Your task to perform on an android device: Open Android settings Image 0: 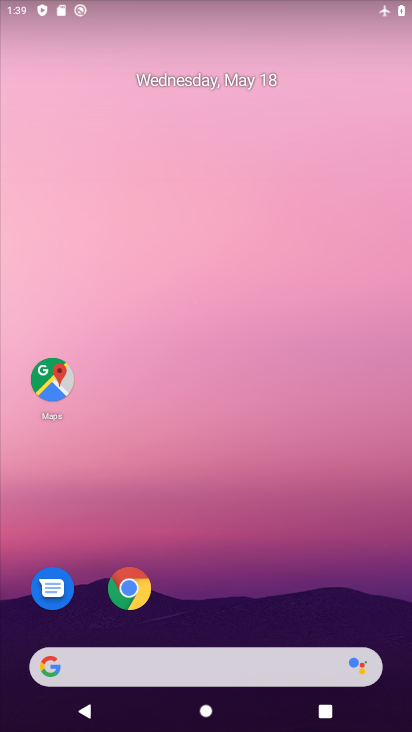
Step 0: drag from (38, 620) to (253, 277)
Your task to perform on an android device: Open Android settings Image 1: 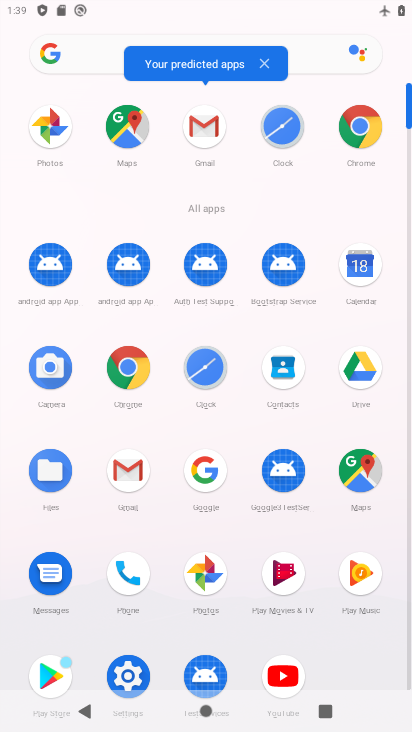
Step 1: click (127, 666)
Your task to perform on an android device: Open Android settings Image 2: 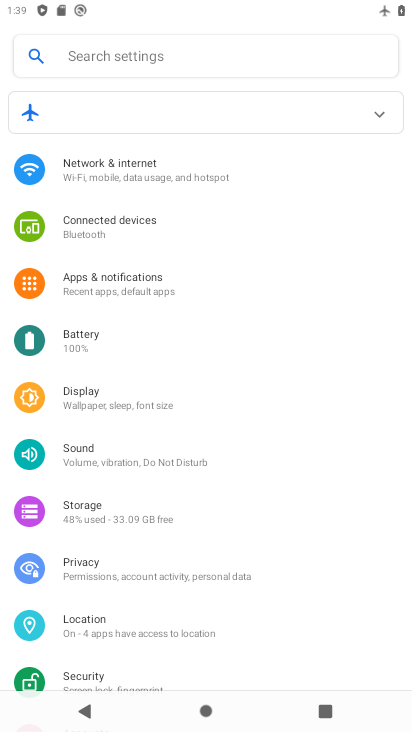
Step 2: drag from (87, 657) to (221, 188)
Your task to perform on an android device: Open Android settings Image 3: 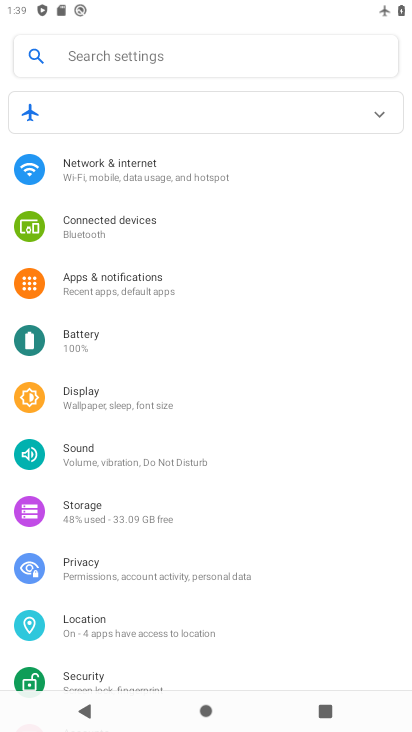
Step 3: drag from (5, 377) to (245, 106)
Your task to perform on an android device: Open Android settings Image 4: 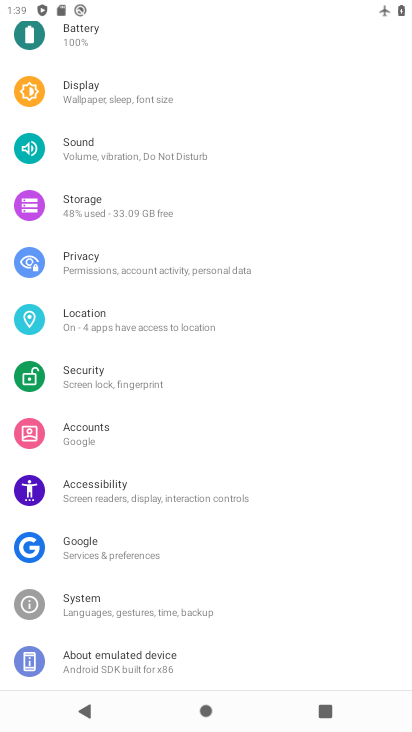
Step 4: click (103, 605)
Your task to perform on an android device: Open Android settings Image 5: 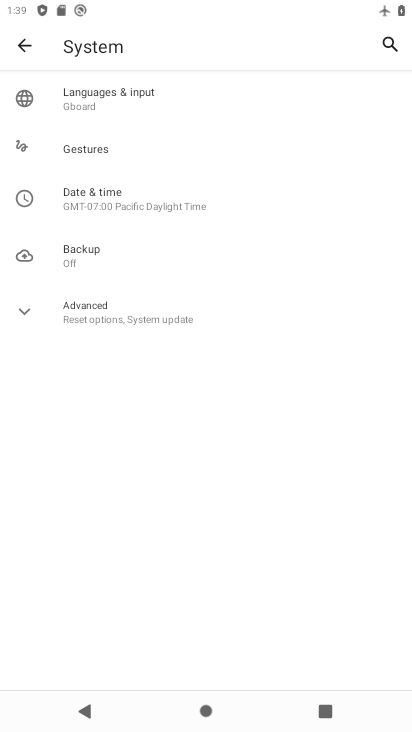
Step 5: click (111, 310)
Your task to perform on an android device: Open Android settings Image 6: 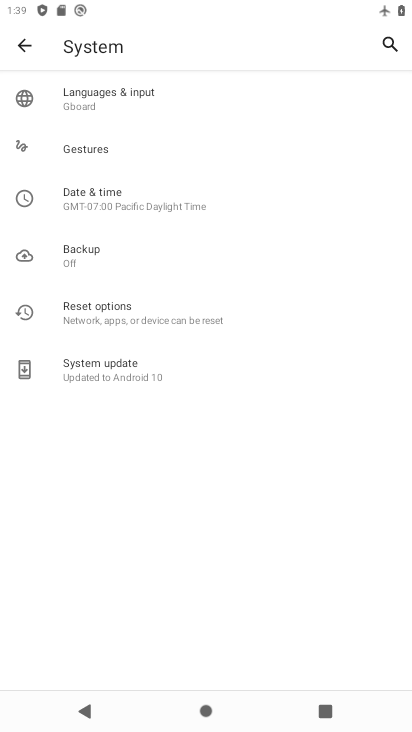
Step 6: task complete